Your task to perform on an android device: Open display settings Image 0: 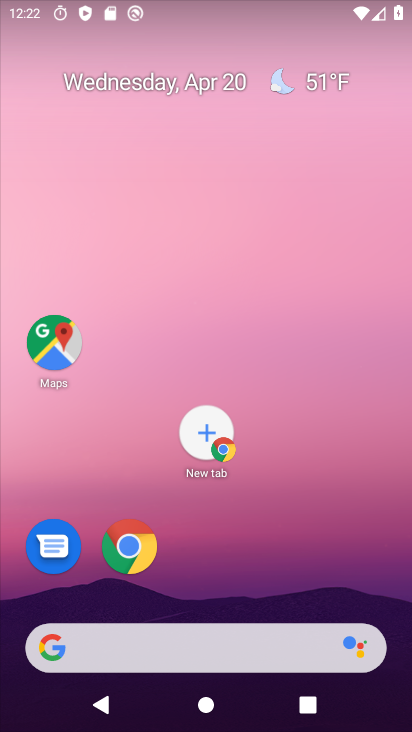
Step 0: drag from (274, 7) to (279, 602)
Your task to perform on an android device: Open display settings Image 1: 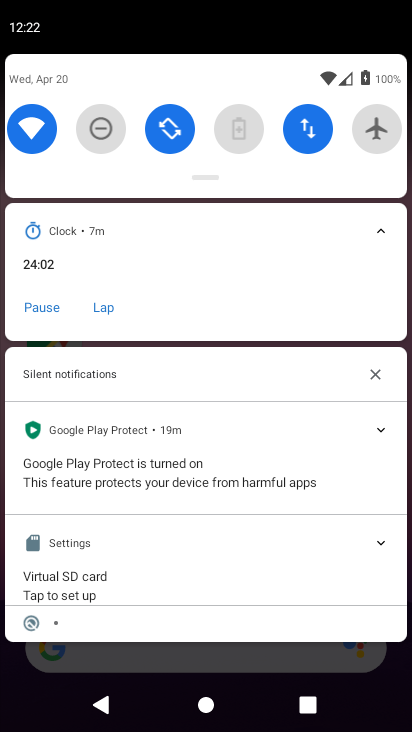
Step 1: drag from (237, 69) to (316, 555)
Your task to perform on an android device: Open display settings Image 2: 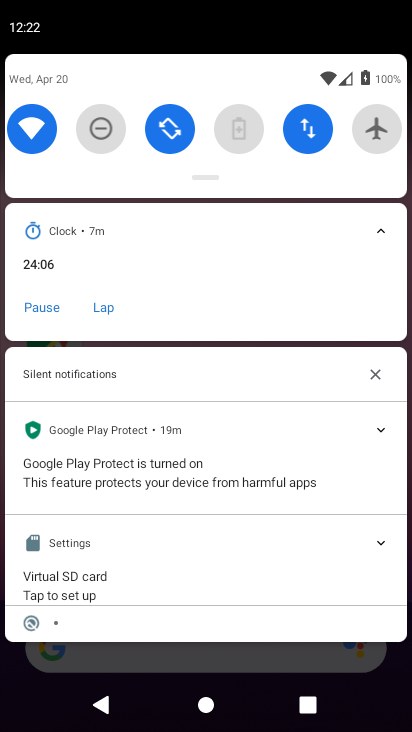
Step 2: drag from (207, 78) to (183, 683)
Your task to perform on an android device: Open display settings Image 3: 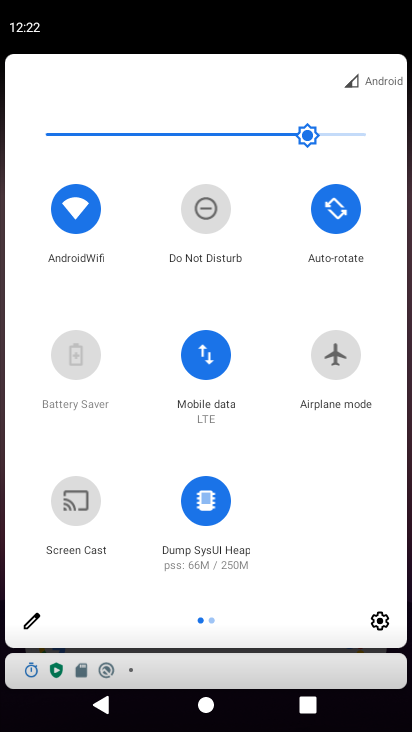
Step 3: click (372, 617)
Your task to perform on an android device: Open display settings Image 4: 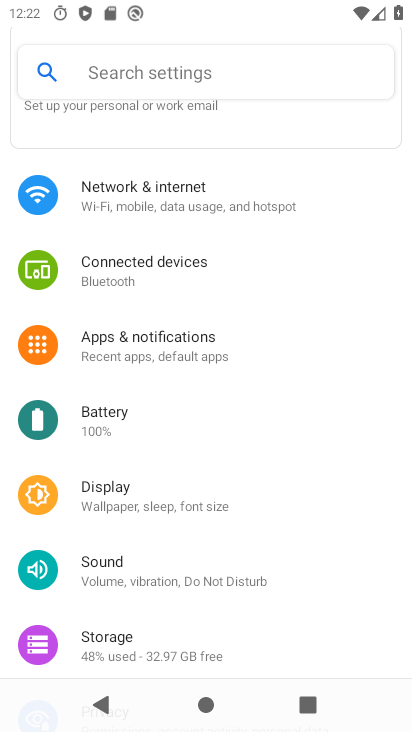
Step 4: click (130, 496)
Your task to perform on an android device: Open display settings Image 5: 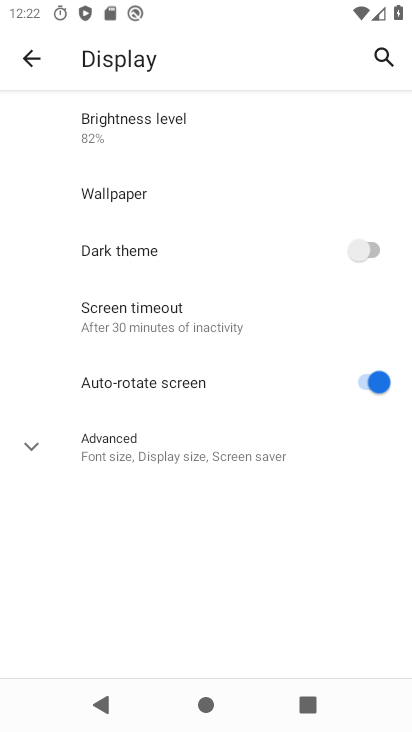
Step 5: task complete